Your task to perform on an android device: turn pop-ups off in chrome Image 0: 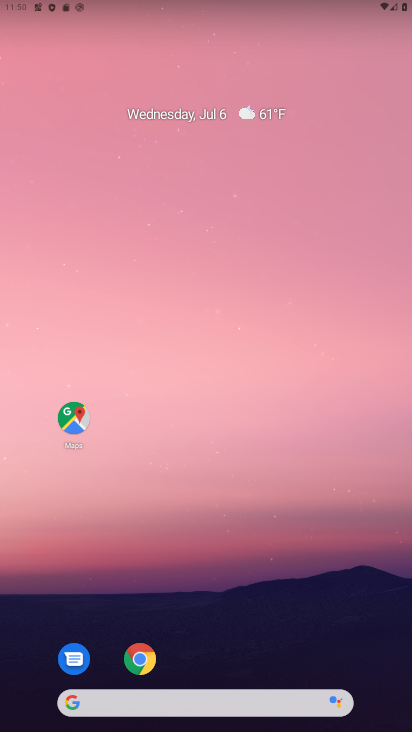
Step 0: click (151, 663)
Your task to perform on an android device: turn pop-ups off in chrome Image 1: 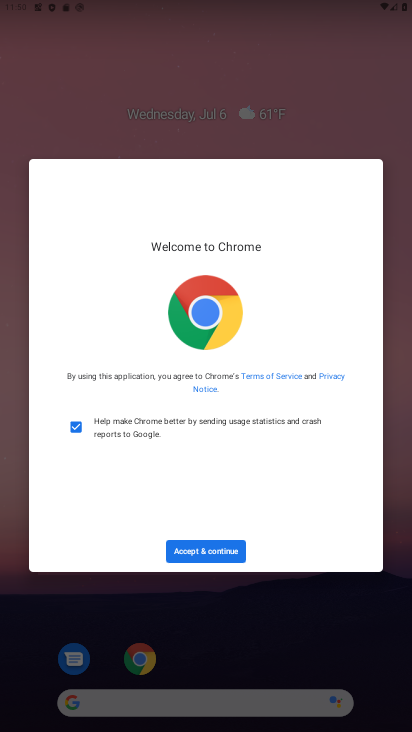
Step 1: click (189, 548)
Your task to perform on an android device: turn pop-ups off in chrome Image 2: 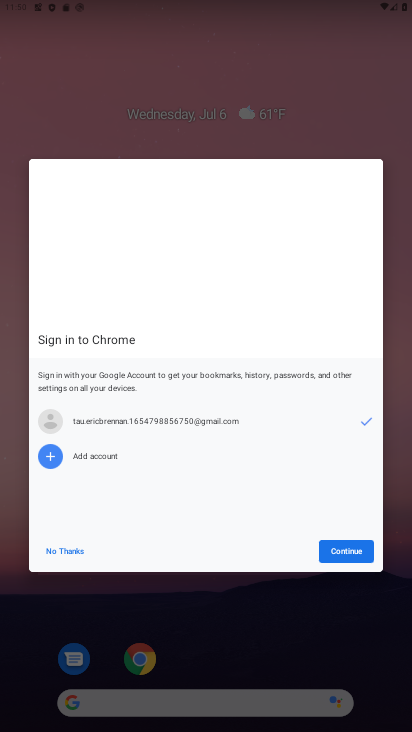
Step 2: click (360, 556)
Your task to perform on an android device: turn pop-ups off in chrome Image 3: 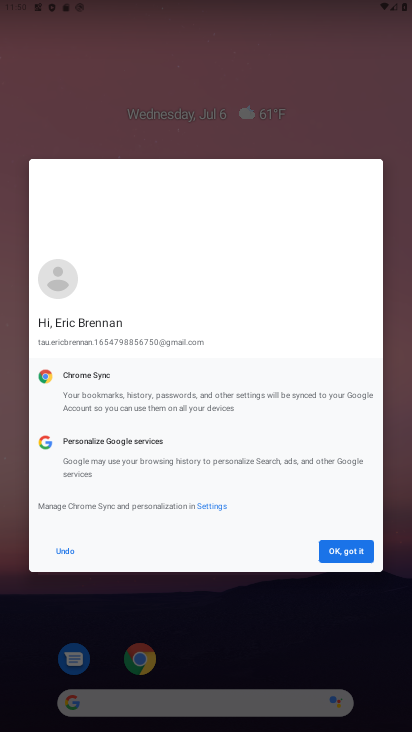
Step 3: click (360, 556)
Your task to perform on an android device: turn pop-ups off in chrome Image 4: 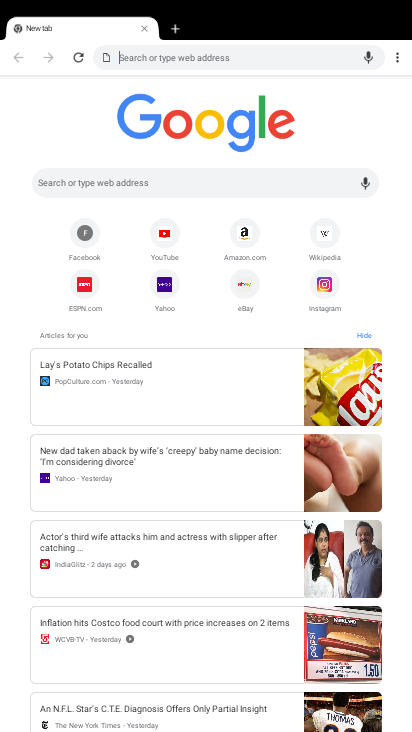
Step 4: click (55, 181)
Your task to perform on an android device: turn pop-ups off in chrome Image 5: 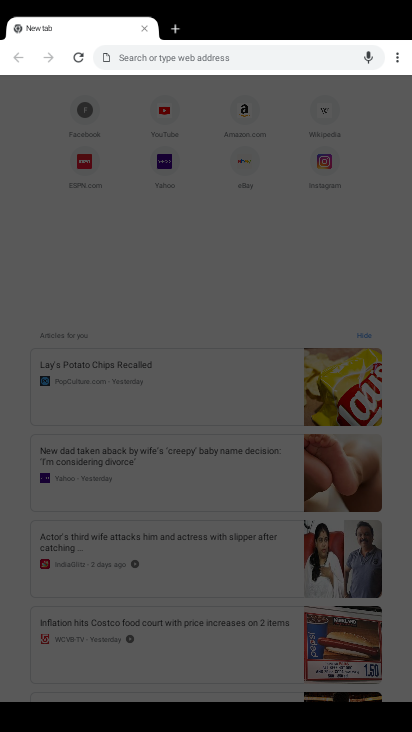
Step 5: click (398, 56)
Your task to perform on an android device: turn pop-ups off in chrome Image 6: 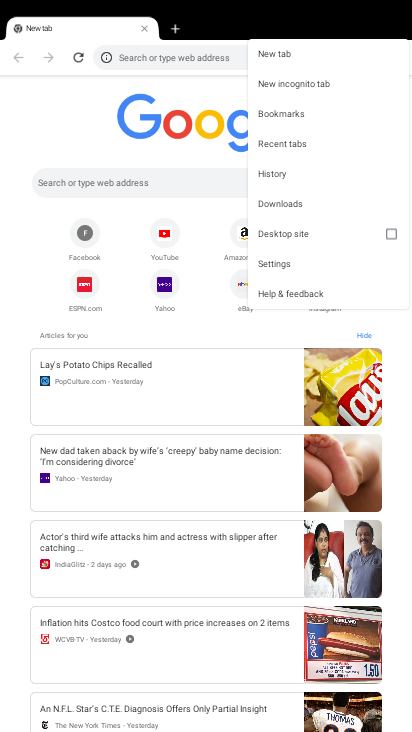
Step 6: click (299, 260)
Your task to perform on an android device: turn pop-ups off in chrome Image 7: 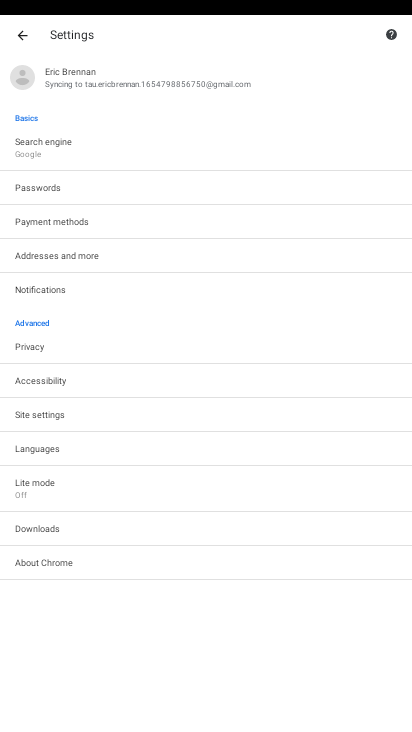
Step 7: click (61, 416)
Your task to perform on an android device: turn pop-ups off in chrome Image 8: 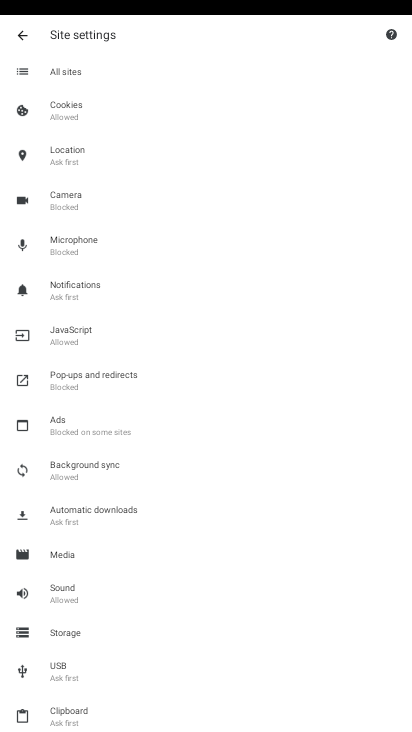
Step 8: click (121, 378)
Your task to perform on an android device: turn pop-ups off in chrome Image 9: 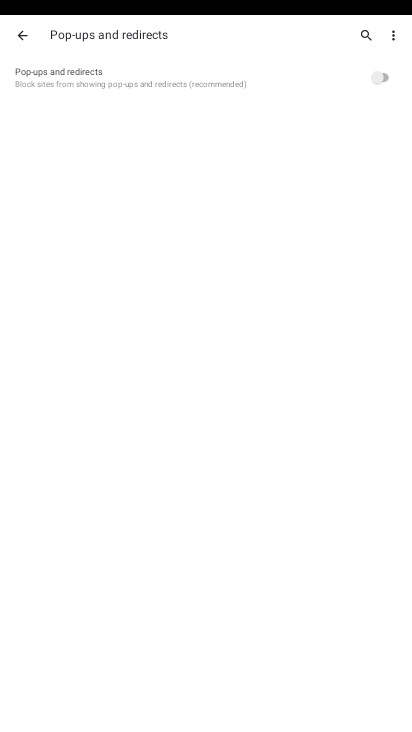
Step 9: task complete